Your task to perform on an android device: toggle show notifications on the lock screen Image 0: 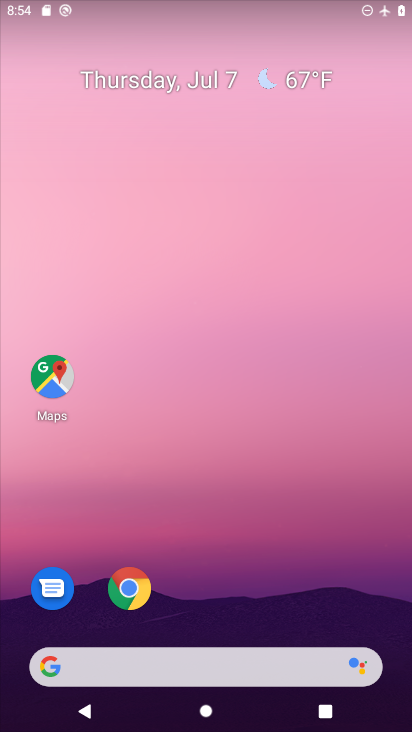
Step 0: drag from (260, 626) to (237, 65)
Your task to perform on an android device: toggle show notifications on the lock screen Image 1: 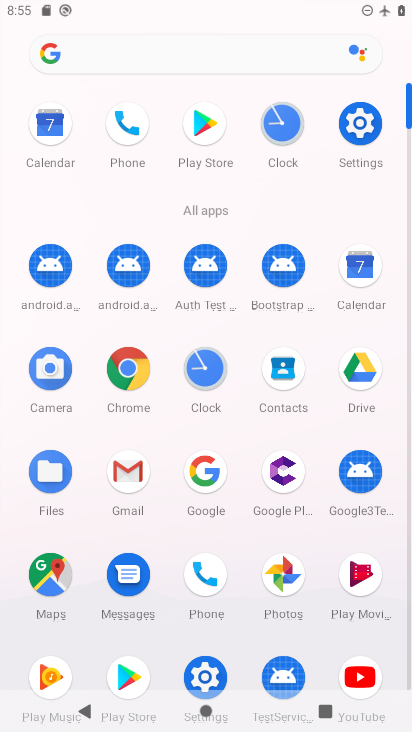
Step 1: click (359, 121)
Your task to perform on an android device: toggle show notifications on the lock screen Image 2: 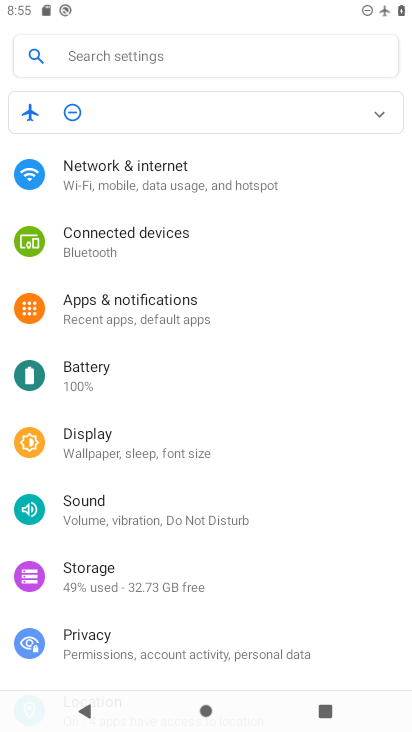
Step 2: click (149, 302)
Your task to perform on an android device: toggle show notifications on the lock screen Image 3: 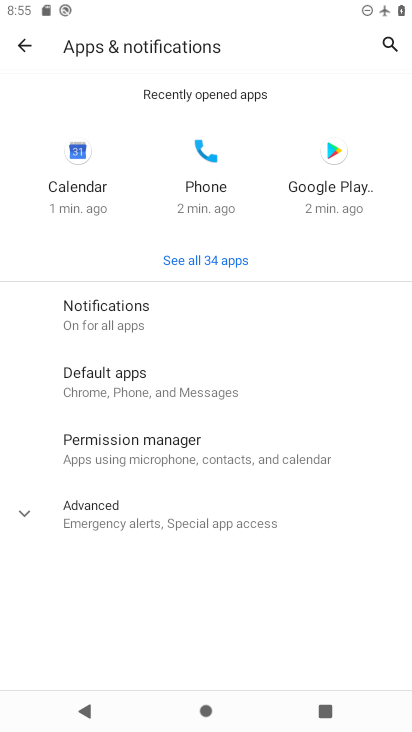
Step 3: click (114, 327)
Your task to perform on an android device: toggle show notifications on the lock screen Image 4: 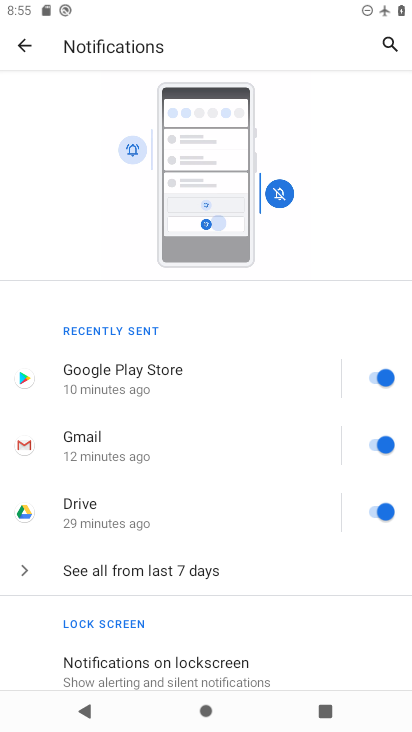
Step 4: drag from (133, 641) to (177, 517)
Your task to perform on an android device: toggle show notifications on the lock screen Image 5: 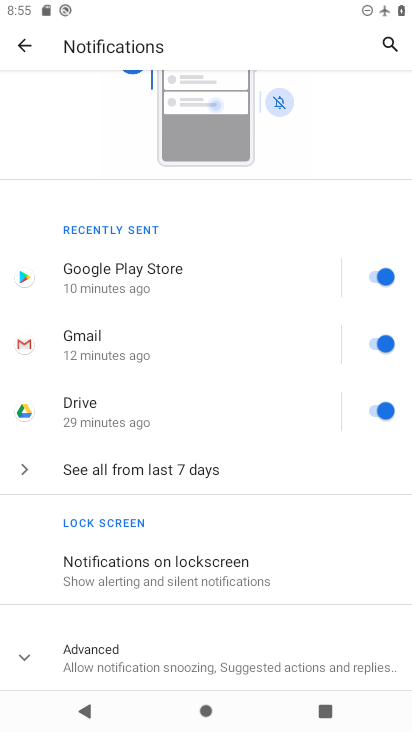
Step 5: click (179, 569)
Your task to perform on an android device: toggle show notifications on the lock screen Image 6: 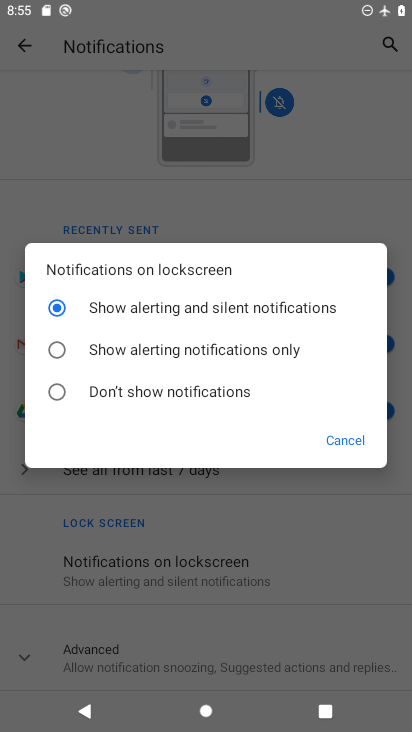
Step 6: click (56, 398)
Your task to perform on an android device: toggle show notifications on the lock screen Image 7: 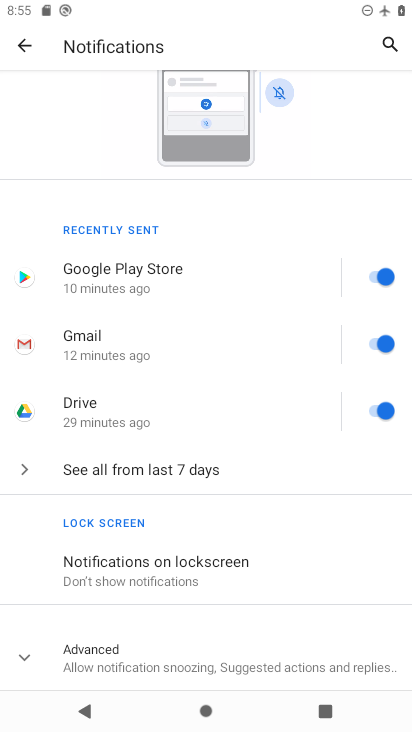
Step 7: task complete